Your task to perform on an android device: turn on the 12-hour format for clock Image 0: 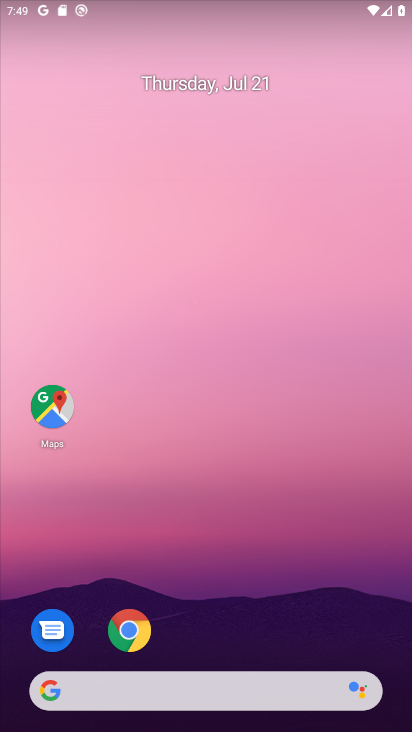
Step 0: drag from (210, 645) to (149, 107)
Your task to perform on an android device: turn on the 12-hour format for clock Image 1: 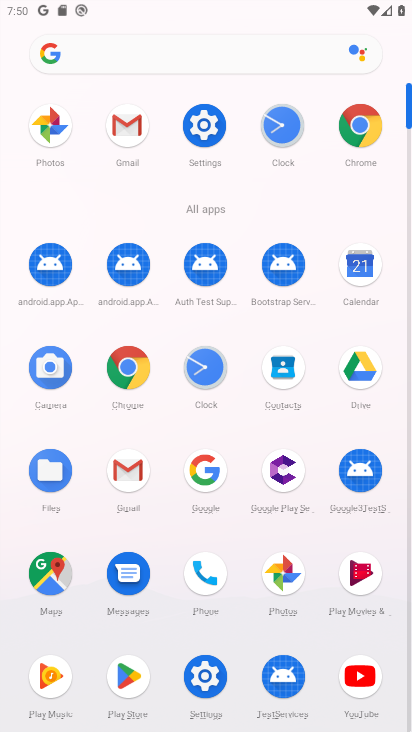
Step 1: click (203, 363)
Your task to perform on an android device: turn on the 12-hour format for clock Image 2: 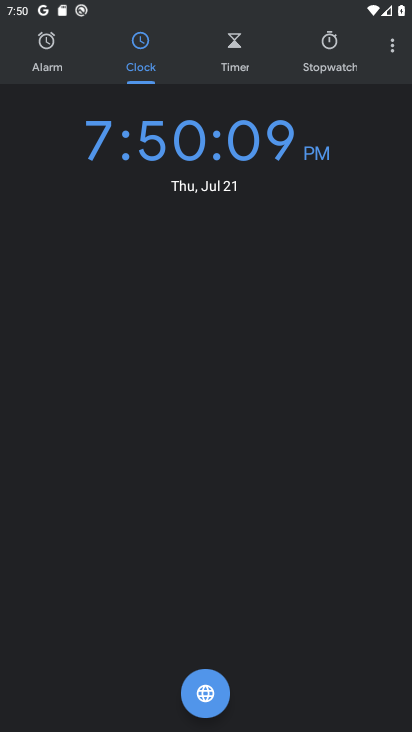
Step 2: drag from (393, 48) to (312, 89)
Your task to perform on an android device: turn on the 12-hour format for clock Image 3: 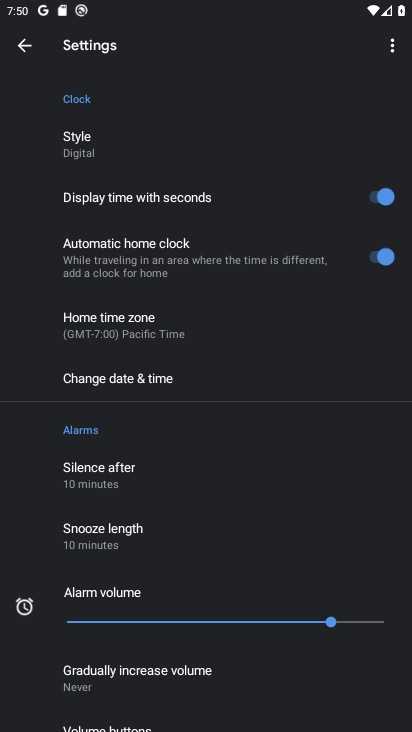
Step 3: click (87, 387)
Your task to perform on an android device: turn on the 12-hour format for clock Image 4: 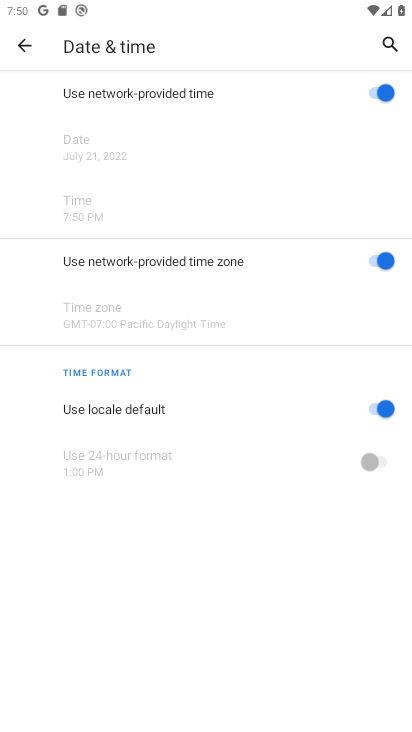
Step 4: task complete